Your task to perform on an android device: What's the weather? Image 0: 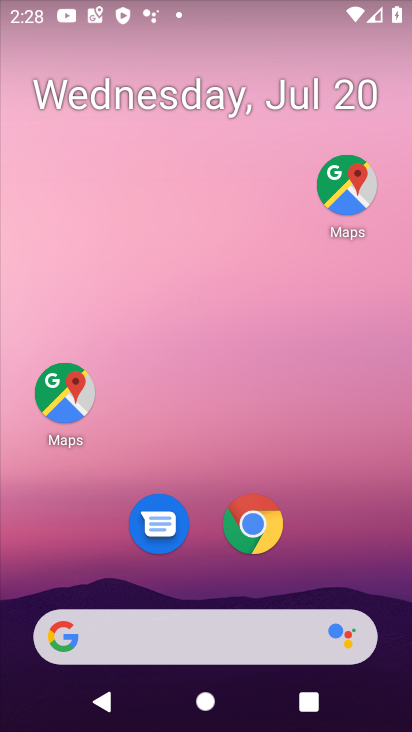
Step 0: click (227, 647)
Your task to perform on an android device: What's the weather? Image 1: 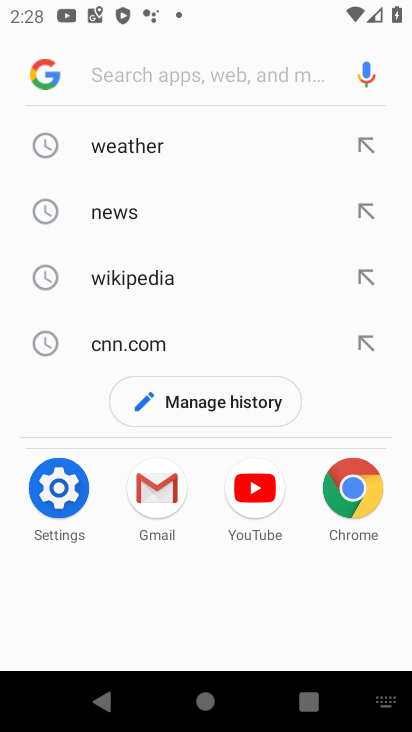
Step 1: click (144, 141)
Your task to perform on an android device: What's the weather? Image 2: 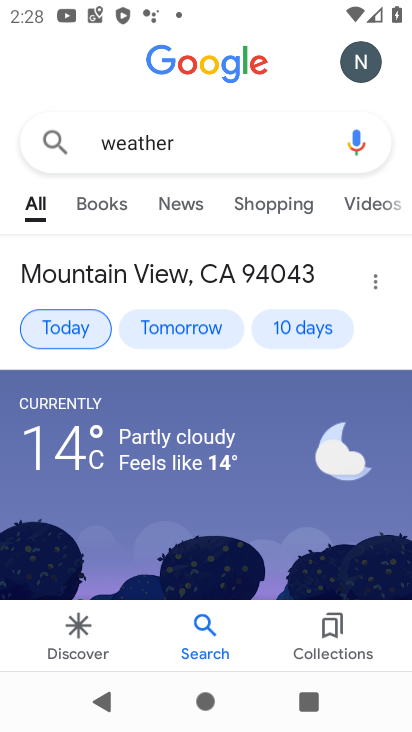
Step 2: click (78, 334)
Your task to perform on an android device: What's the weather? Image 3: 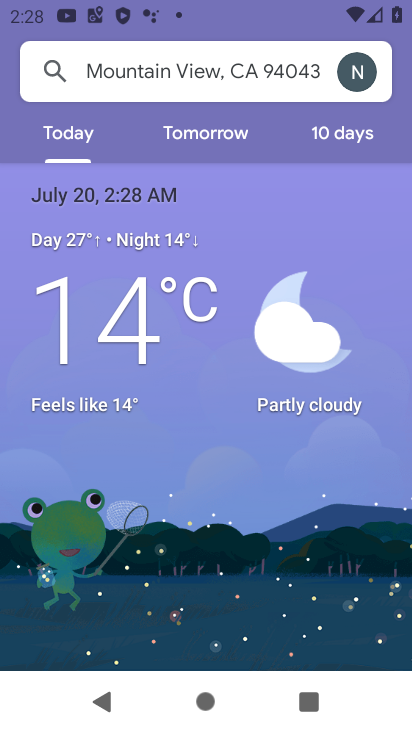
Step 3: task complete